Your task to perform on an android device: turn on location history Image 0: 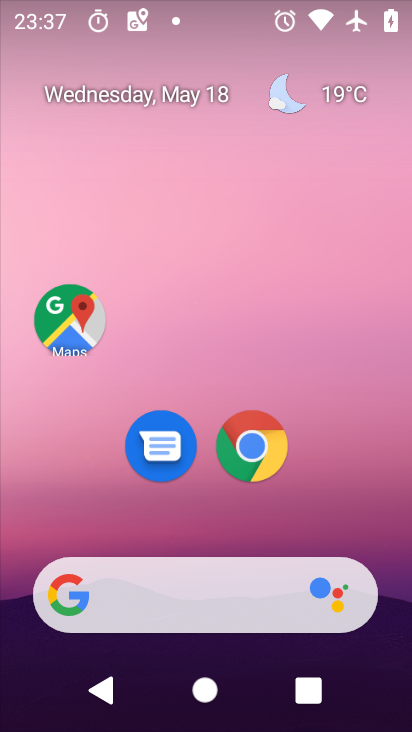
Step 0: press home button
Your task to perform on an android device: turn on location history Image 1: 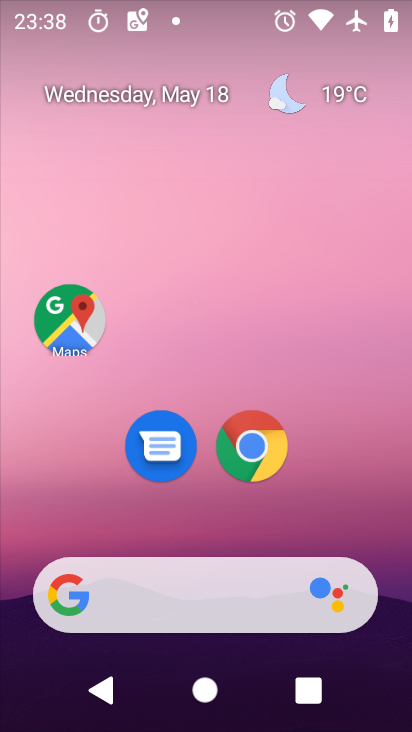
Step 1: click (82, 327)
Your task to perform on an android device: turn on location history Image 2: 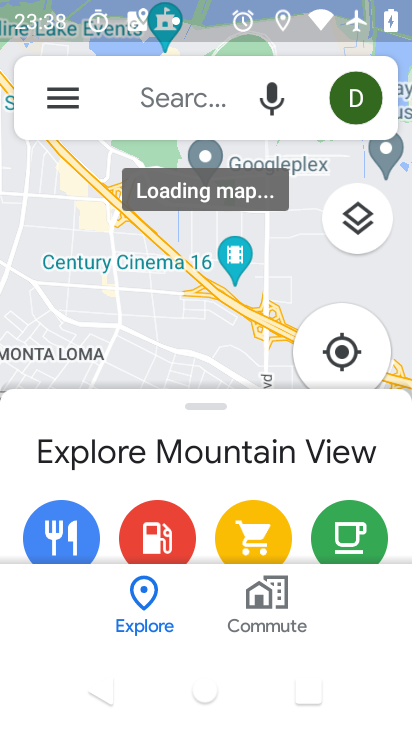
Step 2: click (53, 99)
Your task to perform on an android device: turn on location history Image 3: 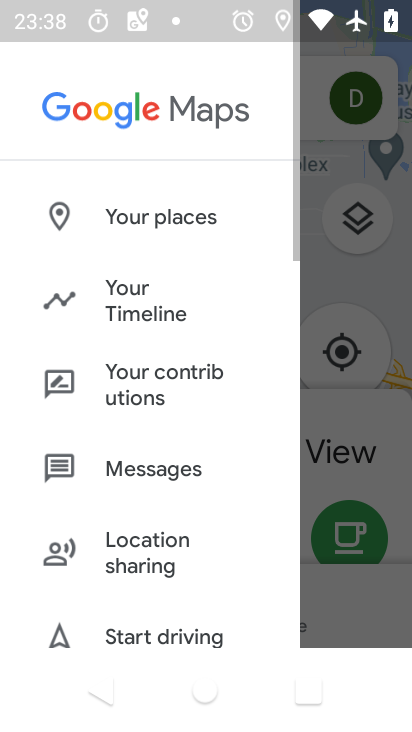
Step 3: click (144, 300)
Your task to perform on an android device: turn on location history Image 4: 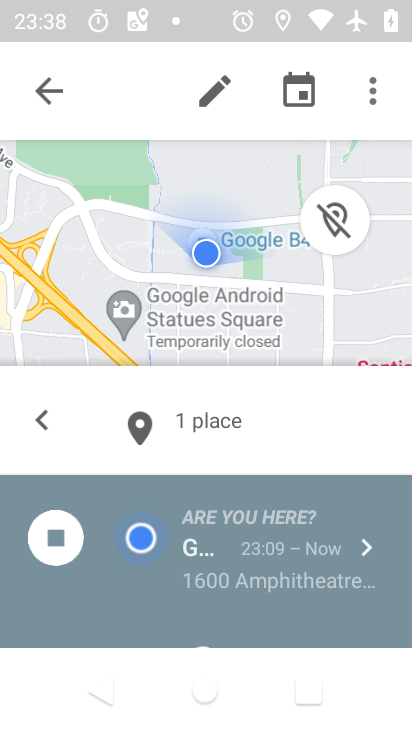
Step 4: click (377, 94)
Your task to perform on an android device: turn on location history Image 5: 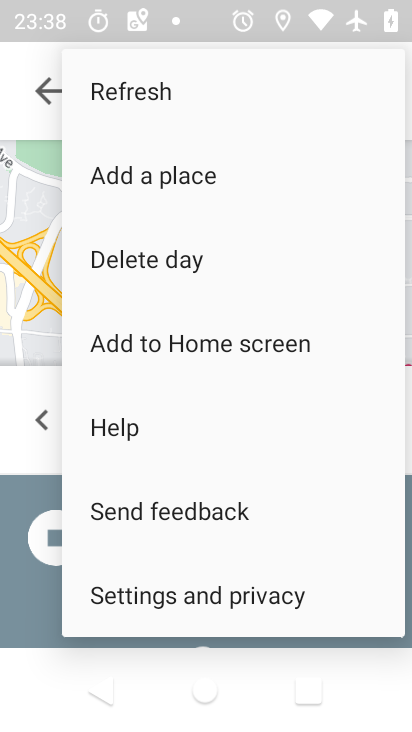
Step 5: click (199, 589)
Your task to perform on an android device: turn on location history Image 6: 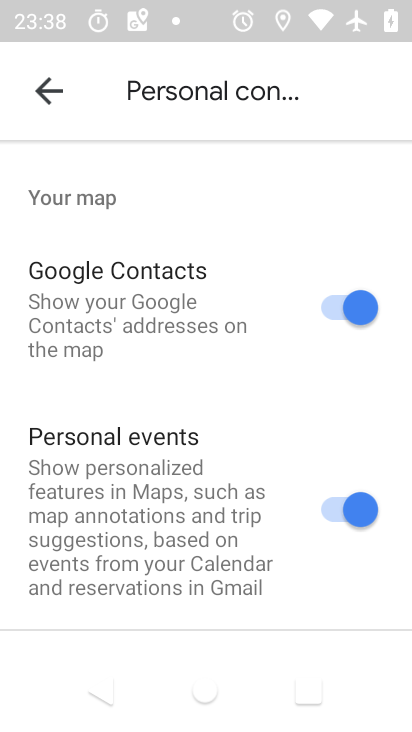
Step 6: drag from (184, 587) to (347, 126)
Your task to perform on an android device: turn on location history Image 7: 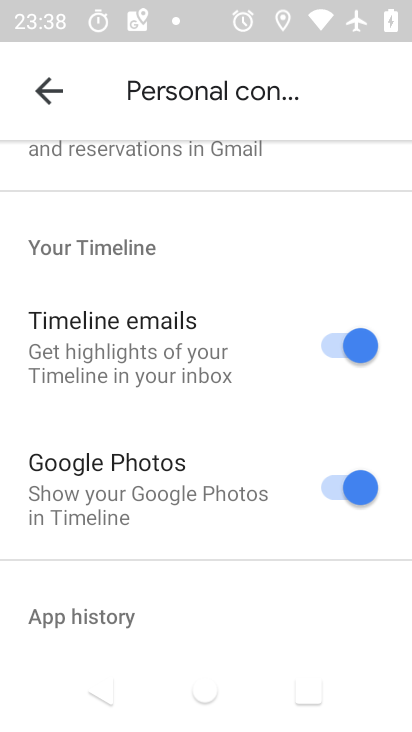
Step 7: drag from (133, 595) to (287, 124)
Your task to perform on an android device: turn on location history Image 8: 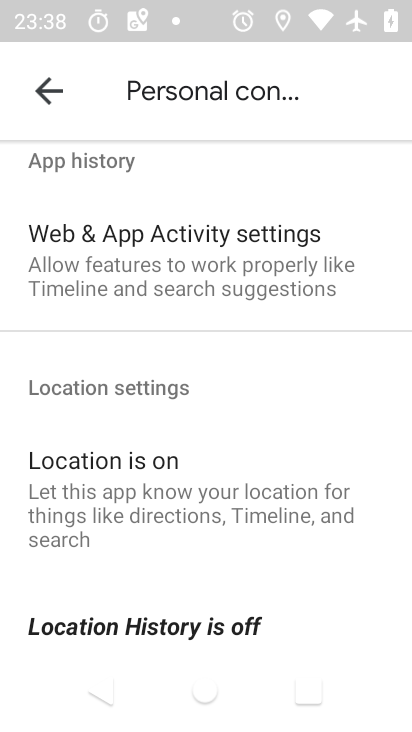
Step 8: drag from (207, 540) to (304, 189)
Your task to perform on an android device: turn on location history Image 9: 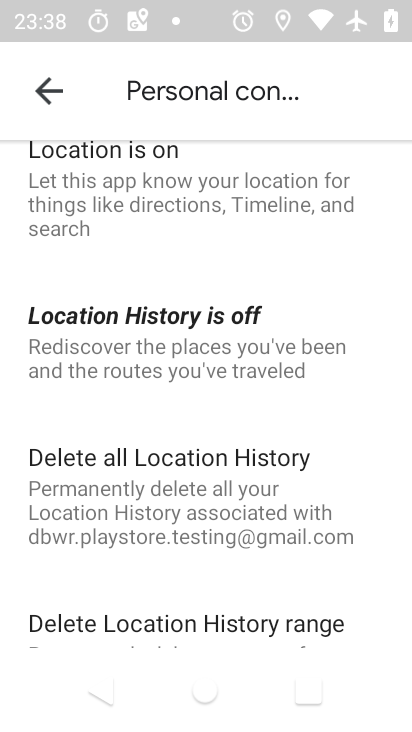
Step 9: click (203, 351)
Your task to perform on an android device: turn on location history Image 10: 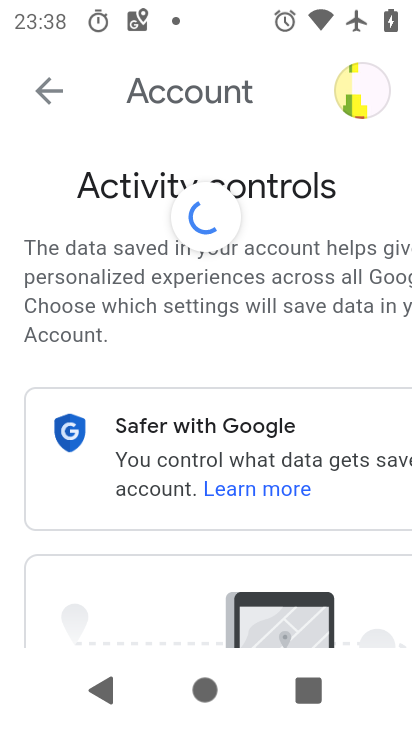
Step 10: drag from (176, 574) to (320, 80)
Your task to perform on an android device: turn on location history Image 11: 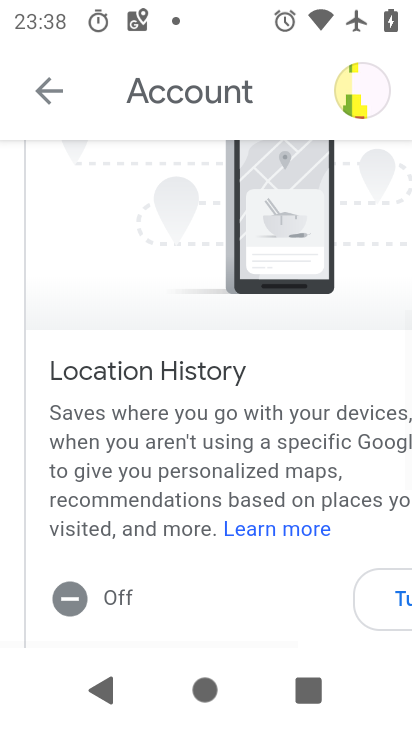
Step 11: drag from (203, 534) to (299, 209)
Your task to perform on an android device: turn on location history Image 12: 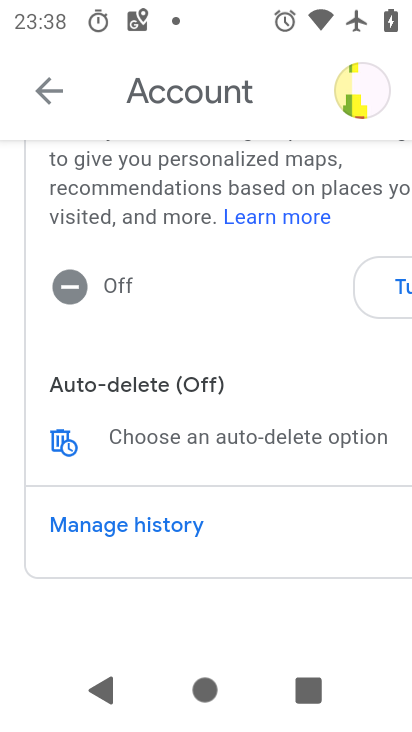
Step 12: click (390, 292)
Your task to perform on an android device: turn on location history Image 13: 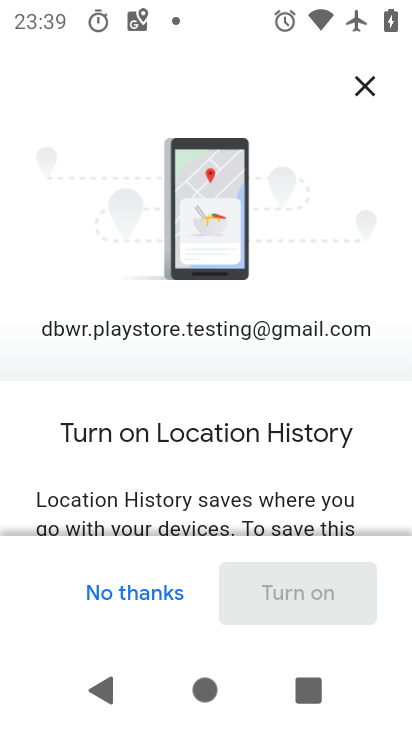
Step 13: drag from (271, 512) to (365, 143)
Your task to perform on an android device: turn on location history Image 14: 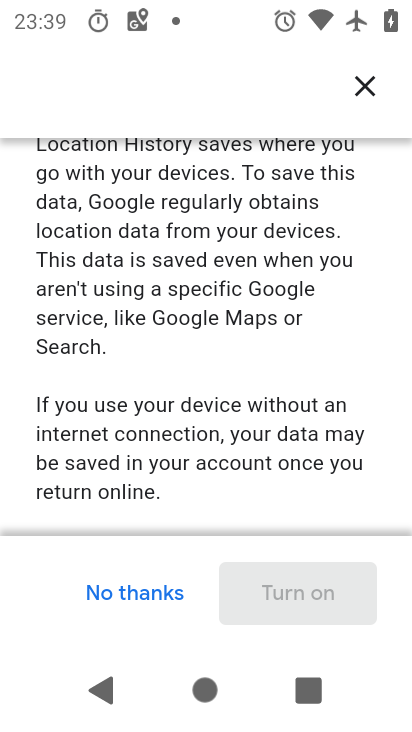
Step 14: drag from (263, 498) to (361, 92)
Your task to perform on an android device: turn on location history Image 15: 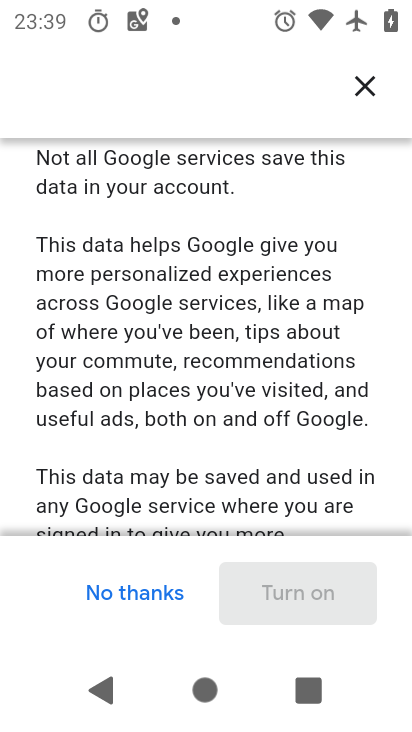
Step 15: drag from (260, 492) to (373, 23)
Your task to perform on an android device: turn on location history Image 16: 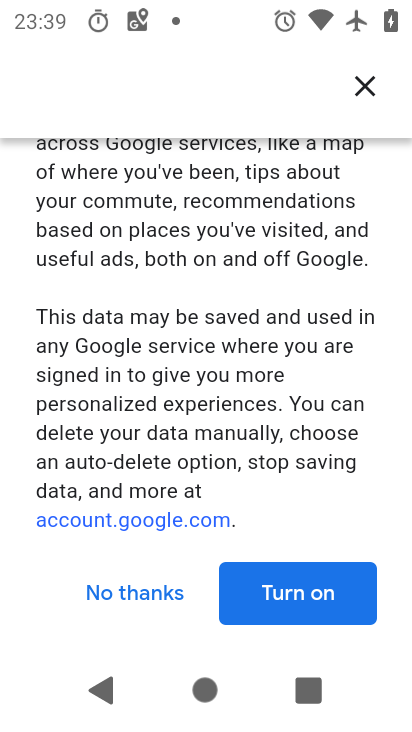
Step 16: click (305, 591)
Your task to perform on an android device: turn on location history Image 17: 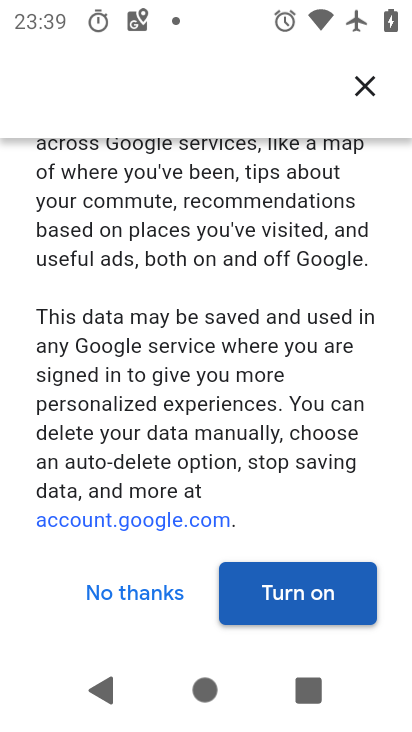
Step 17: click (300, 601)
Your task to perform on an android device: turn on location history Image 18: 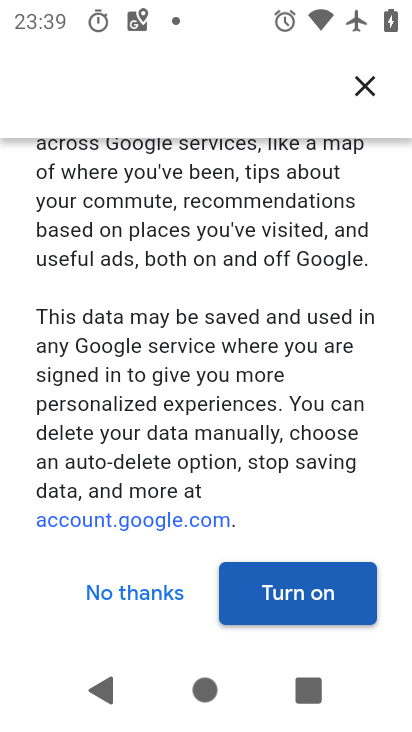
Step 18: click (311, 591)
Your task to perform on an android device: turn on location history Image 19: 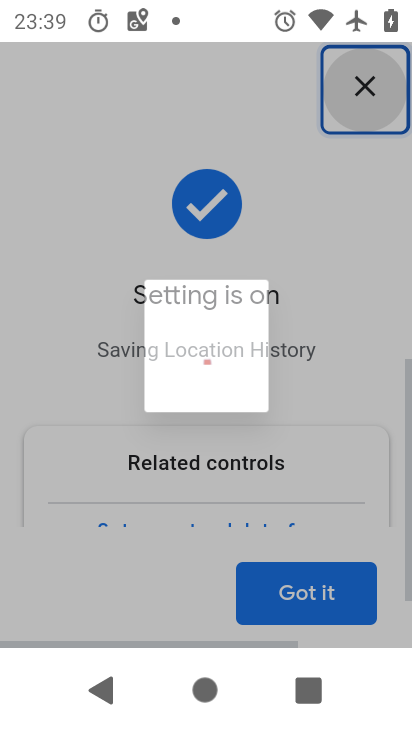
Step 19: click (297, 594)
Your task to perform on an android device: turn on location history Image 20: 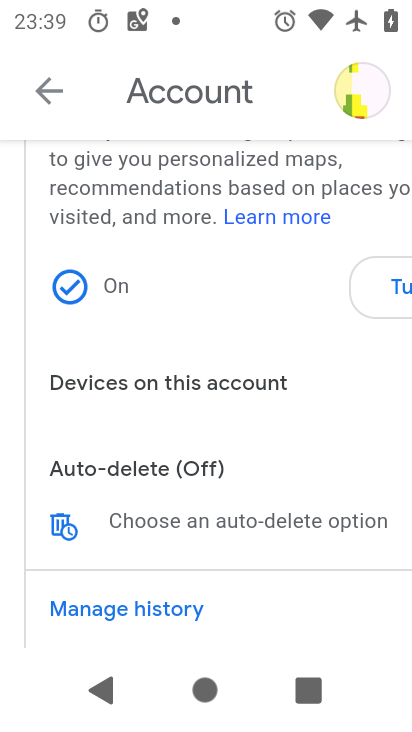
Step 20: task complete